Your task to perform on an android device: all mails in gmail Image 0: 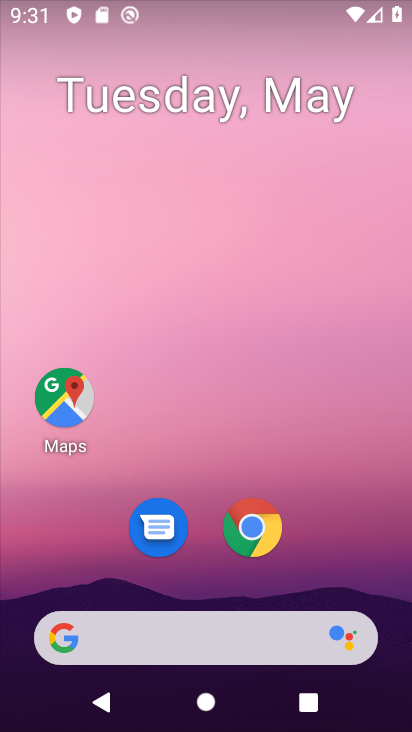
Step 0: drag from (225, 601) to (157, 12)
Your task to perform on an android device: all mails in gmail Image 1: 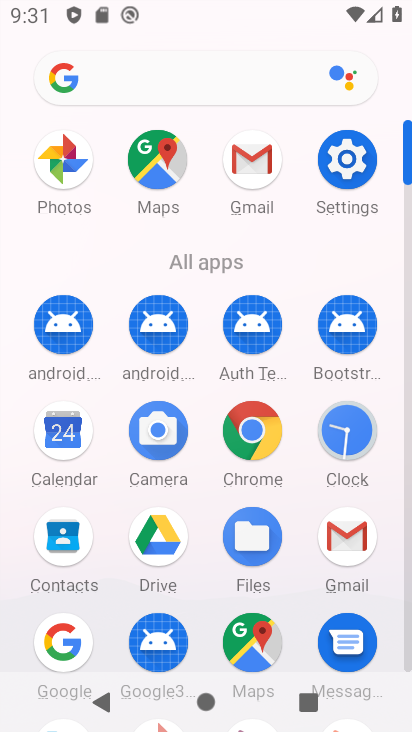
Step 1: click (347, 527)
Your task to perform on an android device: all mails in gmail Image 2: 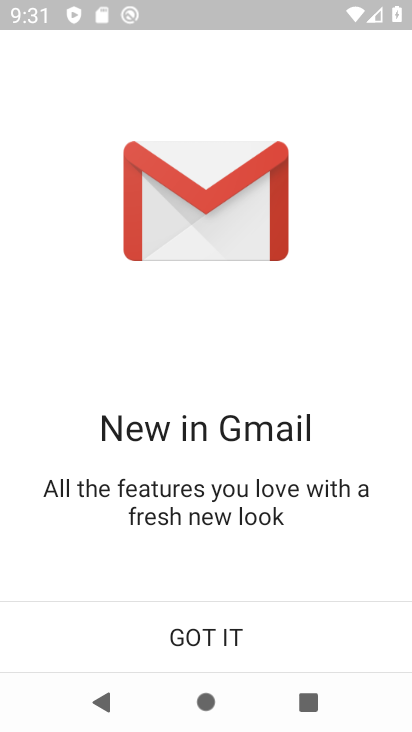
Step 2: click (172, 650)
Your task to perform on an android device: all mails in gmail Image 3: 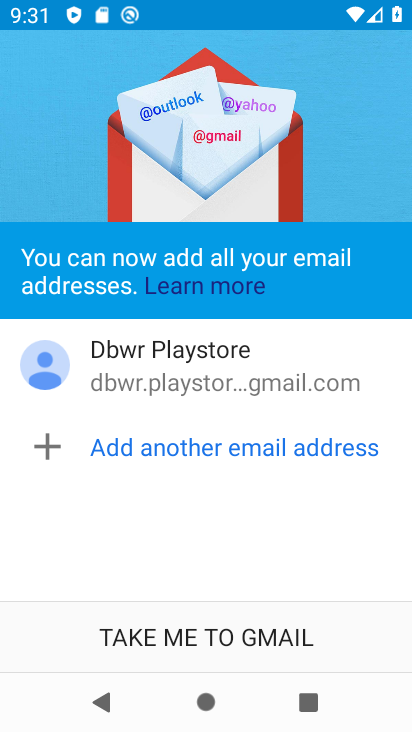
Step 3: click (169, 620)
Your task to perform on an android device: all mails in gmail Image 4: 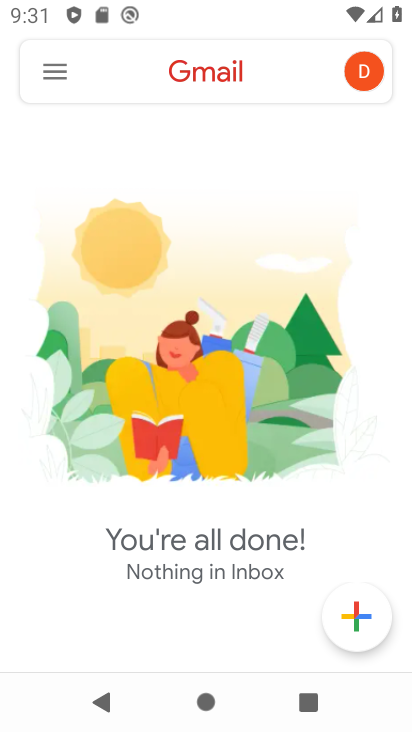
Step 4: click (35, 65)
Your task to perform on an android device: all mails in gmail Image 5: 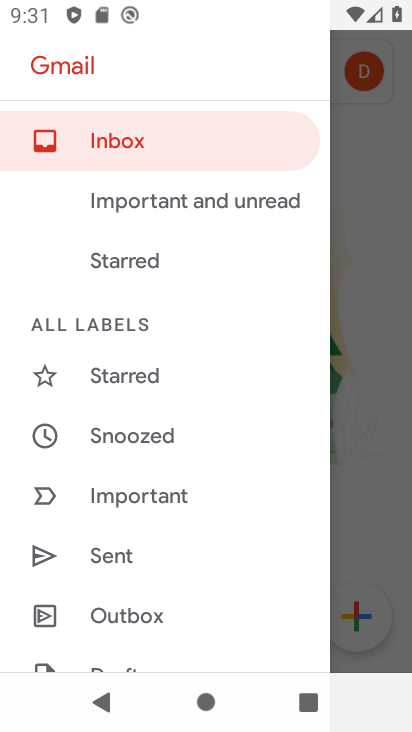
Step 5: click (152, 495)
Your task to perform on an android device: all mails in gmail Image 6: 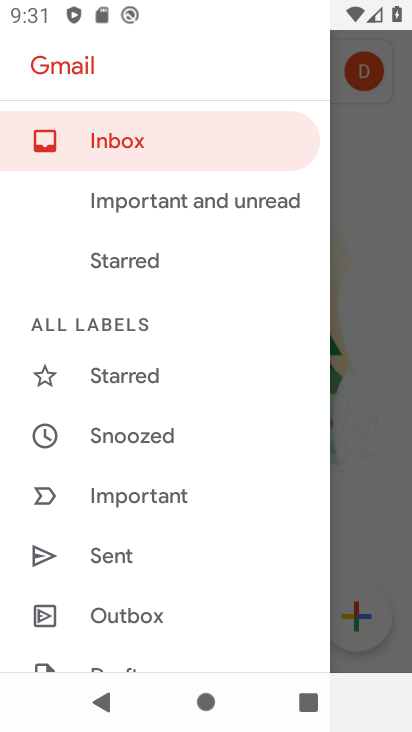
Step 6: drag from (152, 495) to (162, 170)
Your task to perform on an android device: all mails in gmail Image 7: 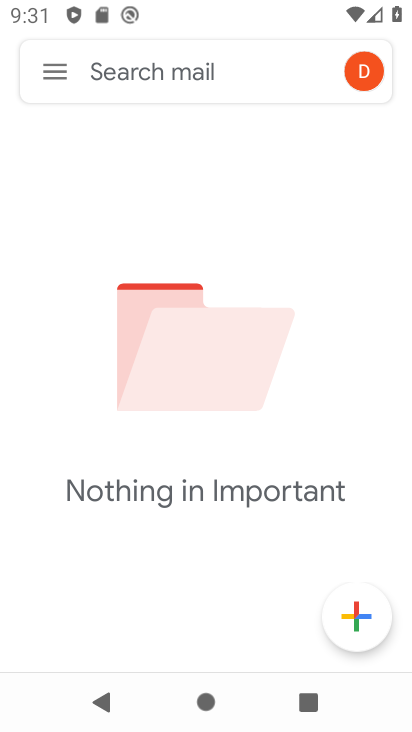
Step 7: click (61, 71)
Your task to perform on an android device: all mails in gmail Image 8: 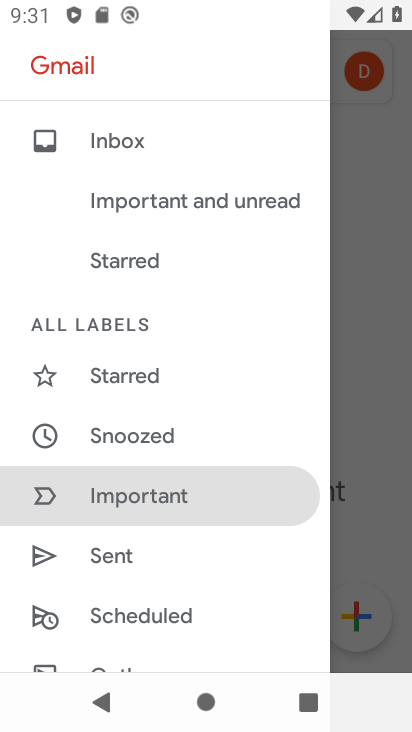
Step 8: drag from (215, 567) to (187, 132)
Your task to perform on an android device: all mails in gmail Image 9: 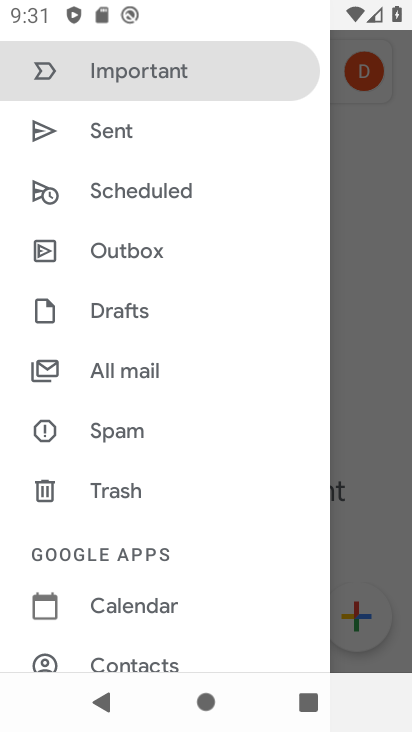
Step 9: click (102, 370)
Your task to perform on an android device: all mails in gmail Image 10: 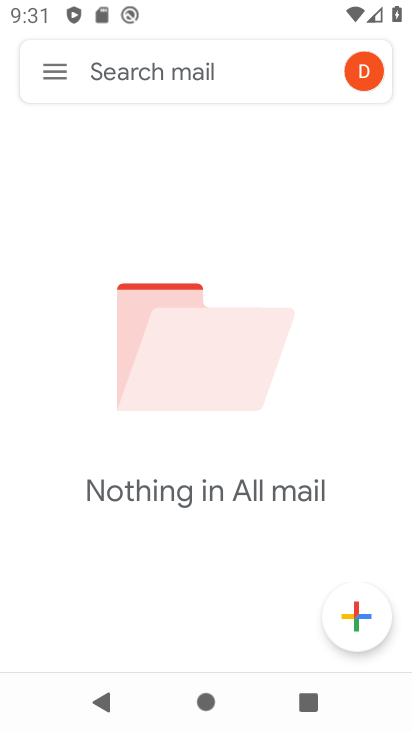
Step 10: task complete